Your task to perform on an android device: toggle notification dots Image 0: 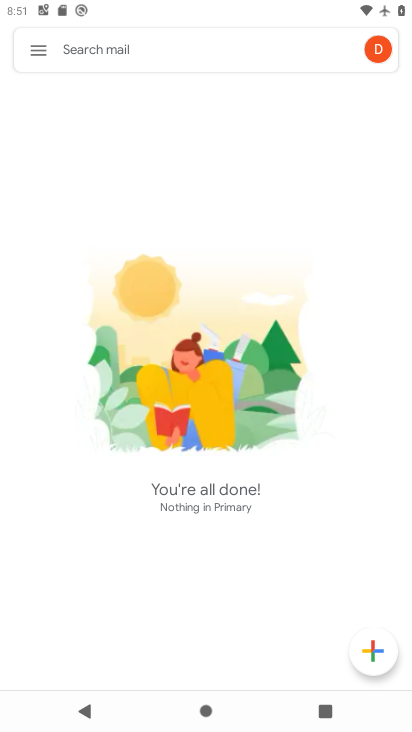
Step 0: press home button
Your task to perform on an android device: toggle notification dots Image 1: 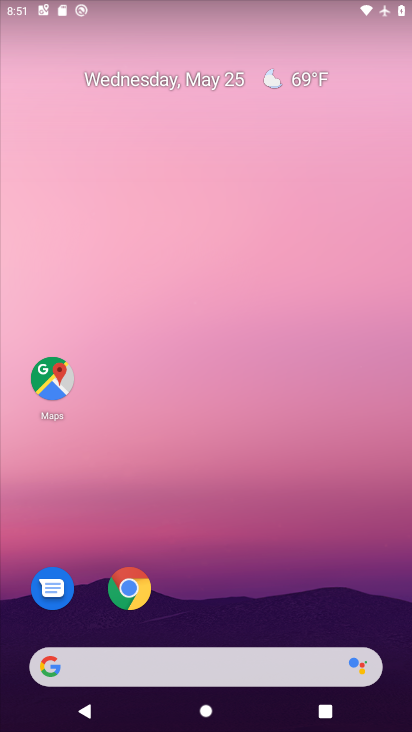
Step 1: drag from (380, 590) to (400, 244)
Your task to perform on an android device: toggle notification dots Image 2: 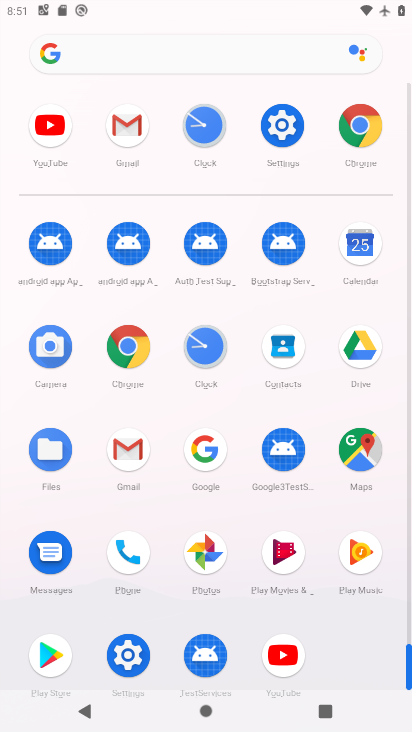
Step 2: click (295, 129)
Your task to perform on an android device: toggle notification dots Image 3: 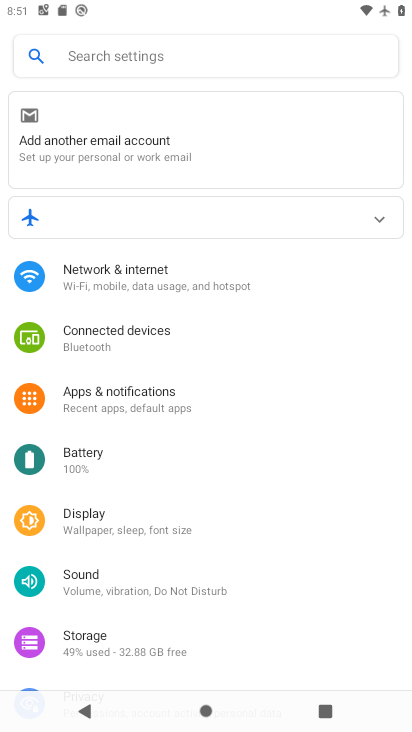
Step 3: drag from (313, 494) to (309, 350)
Your task to perform on an android device: toggle notification dots Image 4: 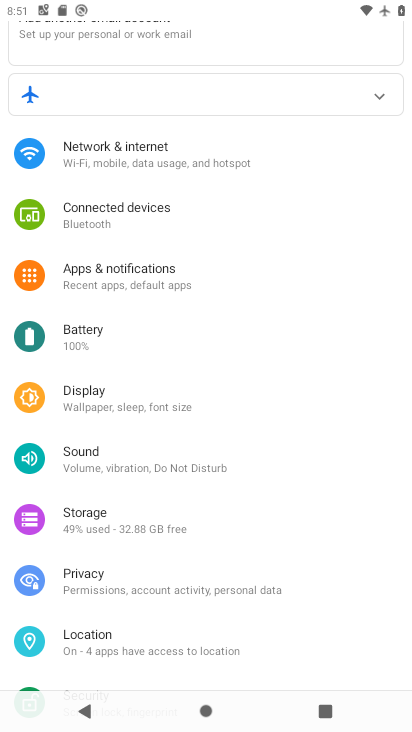
Step 4: drag from (348, 509) to (358, 386)
Your task to perform on an android device: toggle notification dots Image 5: 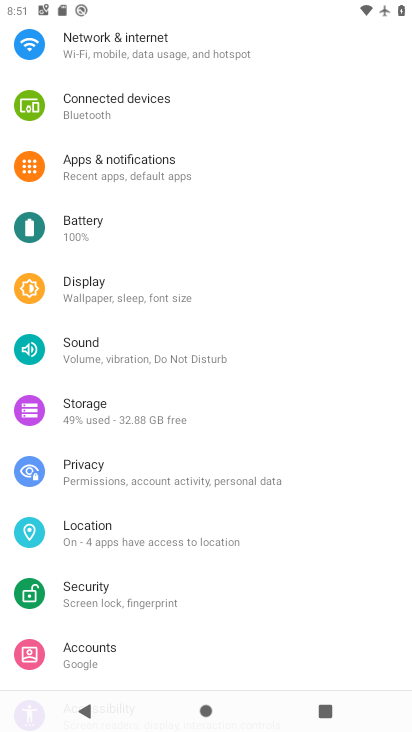
Step 5: drag from (372, 521) to (365, 424)
Your task to perform on an android device: toggle notification dots Image 6: 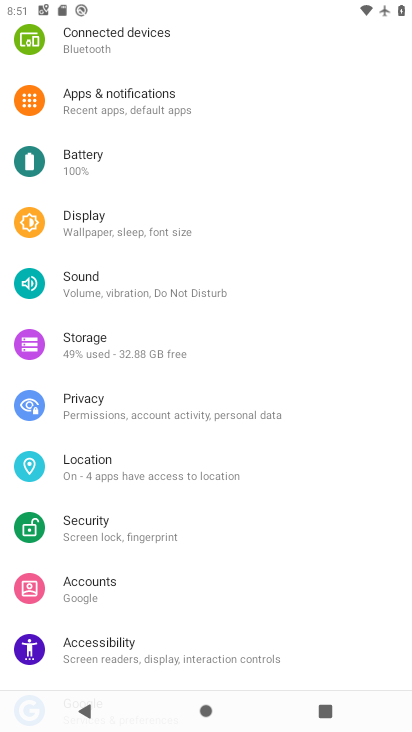
Step 6: drag from (341, 561) to (349, 472)
Your task to perform on an android device: toggle notification dots Image 7: 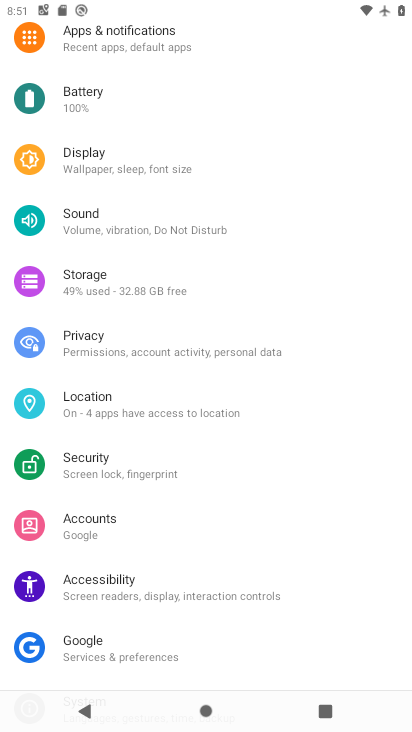
Step 7: drag from (364, 211) to (348, 325)
Your task to perform on an android device: toggle notification dots Image 8: 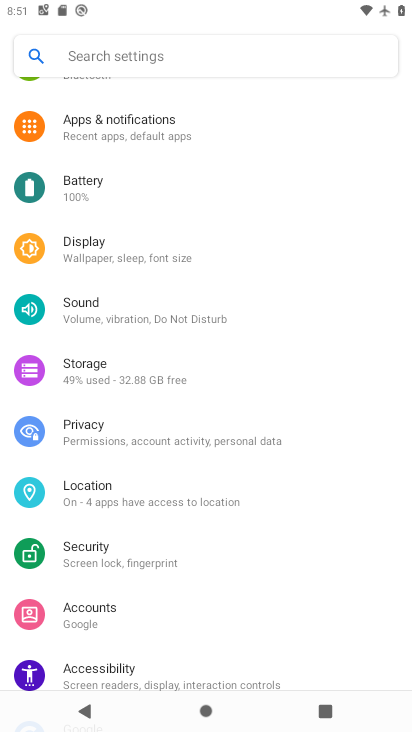
Step 8: drag from (348, 212) to (348, 306)
Your task to perform on an android device: toggle notification dots Image 9: 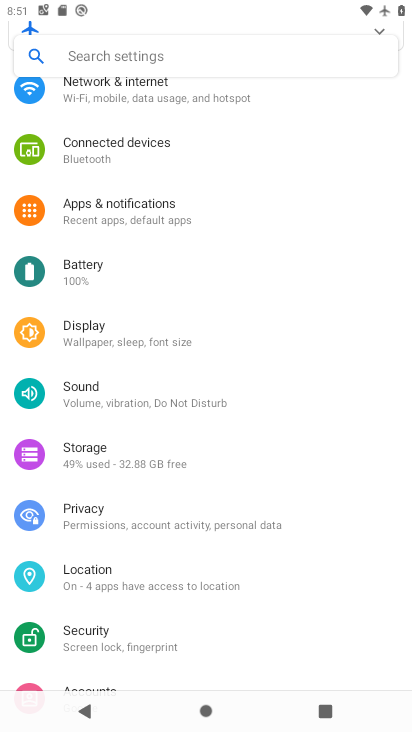
Step 9: drag from (357, 246) to (351, 339)
Your task to perform on an android device: toggle notification dots Image 10: 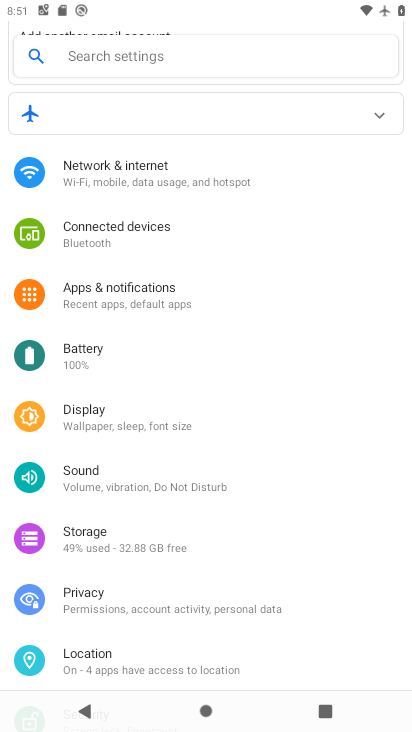
Step 10: drag from (341, 187) to (328, 317)
Your task to perform on an android device: toggle notification dots Image 11: 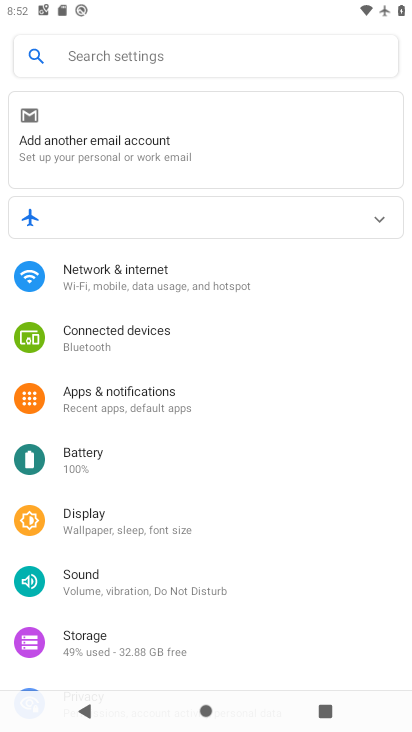
Step 11: drag from (308, 192) to (301, 264)
Your task to perform on an android device: toggle notification dots Image 12: 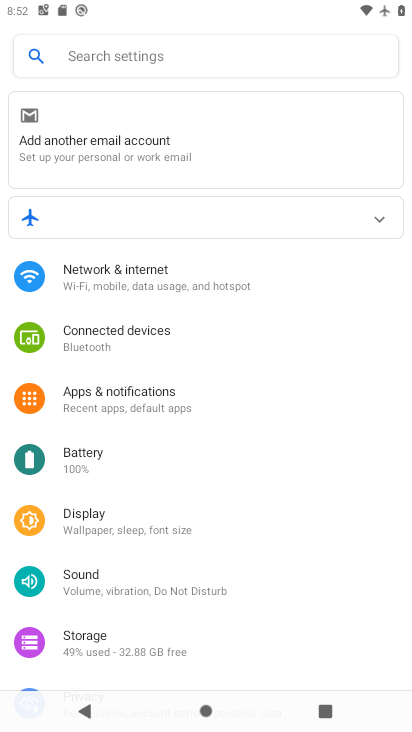
Step 12: click (196, 397)
Your task to perform on an android device: toggle notification dots Image 13: 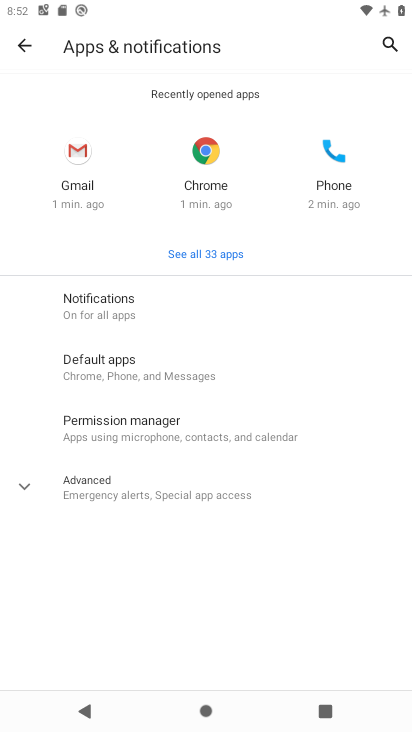
Step 13: click (153, 325)
Your task to perform on an android device: toggle notification dots Image 14: 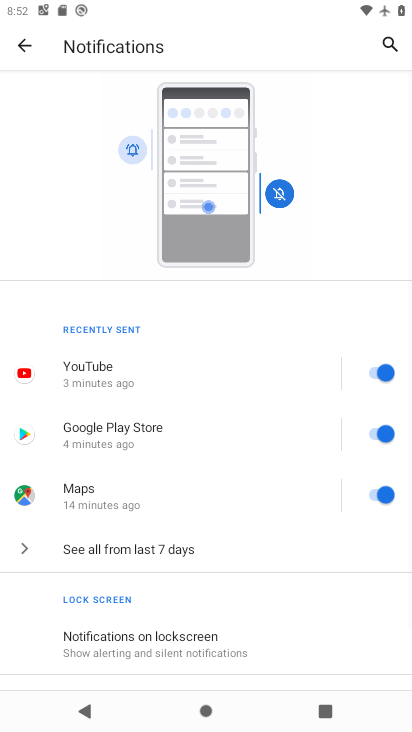
Step 14: drag from (234, 497) to (244, 402)
Your task to perform on an android device: toggle notification dots Image 15: 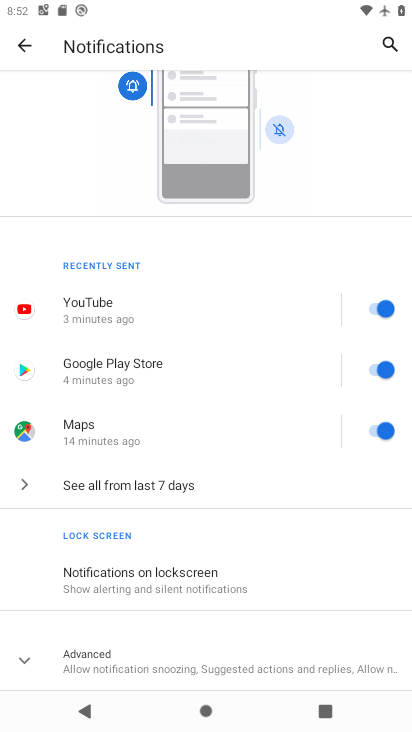
Step 15: drag from (286, 487) to (286, 439)
Your task to perform on an android device: toggle notification dots Image 16: 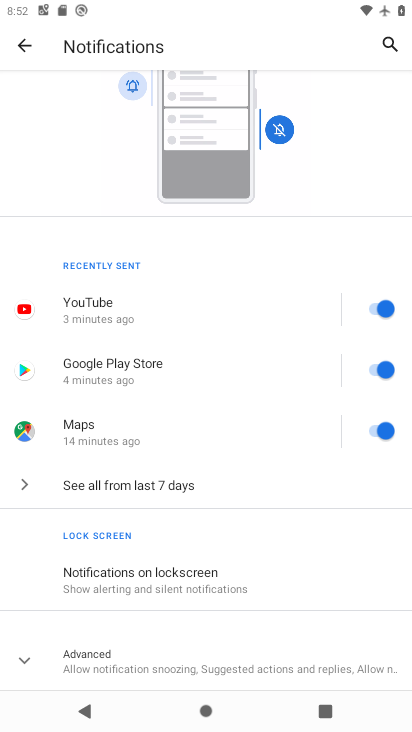
Step 16: drag from (278, 550) to (284, 448)
Your task to perform on an android device: toggle notification dots Image 17: 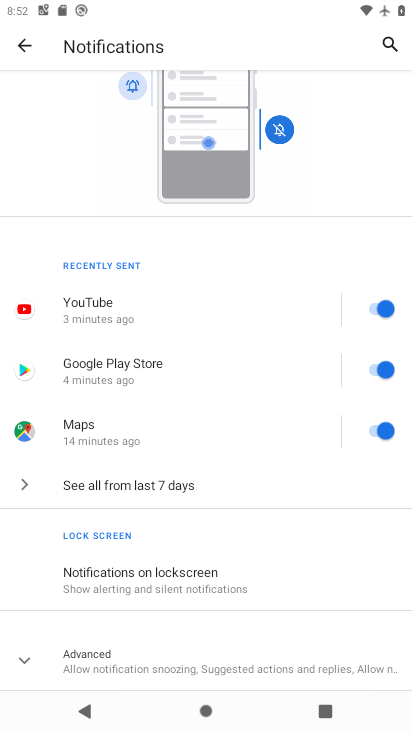
Step 17: click (208, 657)
Your task to perform on an android device: toggle notification dots Image 18: 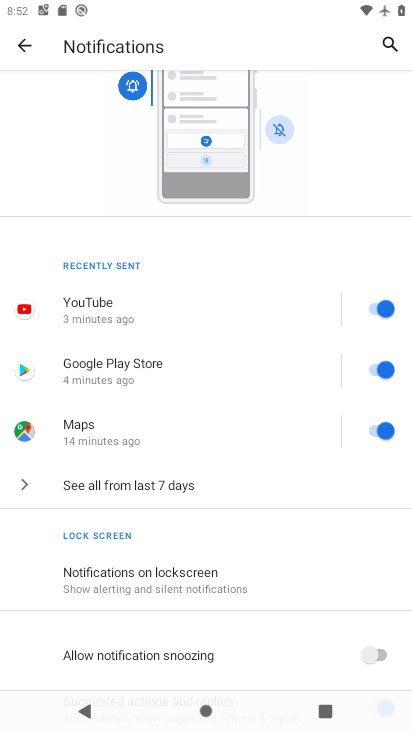
Step 18: drag from (279, 604) to (292, 481)
Your task to perform on an android device: toggle notification dots Image 19: 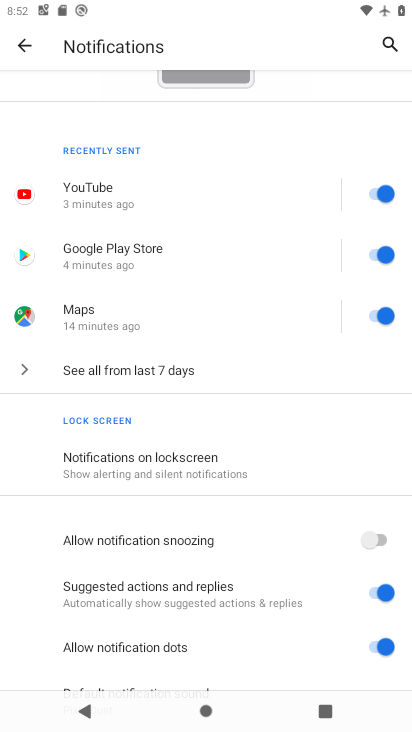
Step 19: drag from (277, 623) to (297, 536)
Your task to perform on an android device: toggle notification dots Image 20: 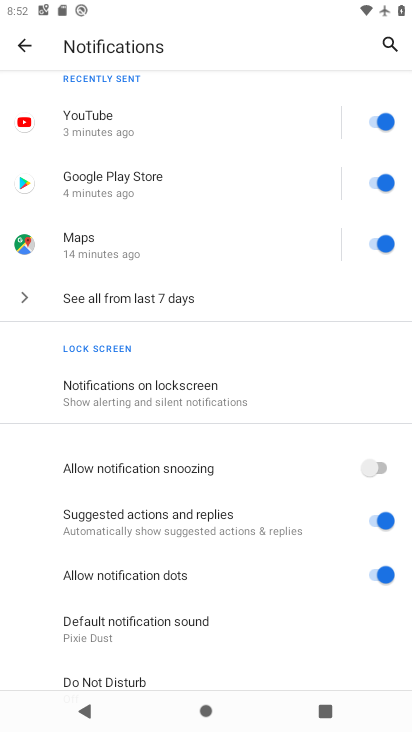
Step 20: drag from (302, 618) to (328, 488)
Your task to perform on an android device: toggle notification dots Image 21: 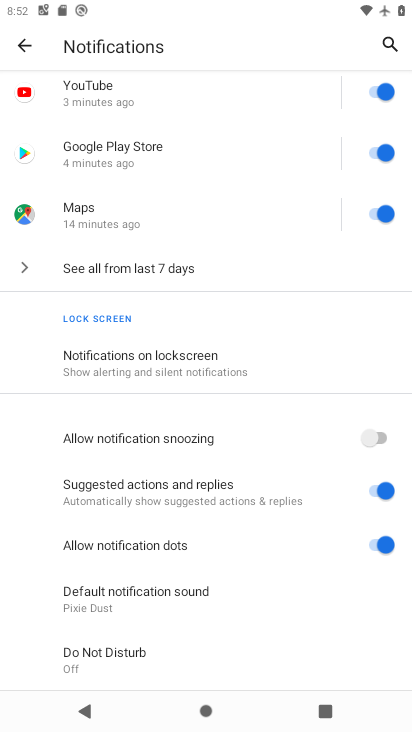
Step 21: drag from (299, 595) to (300, 474)
Your task to perform on an android device: toggle notification dots Image 22: 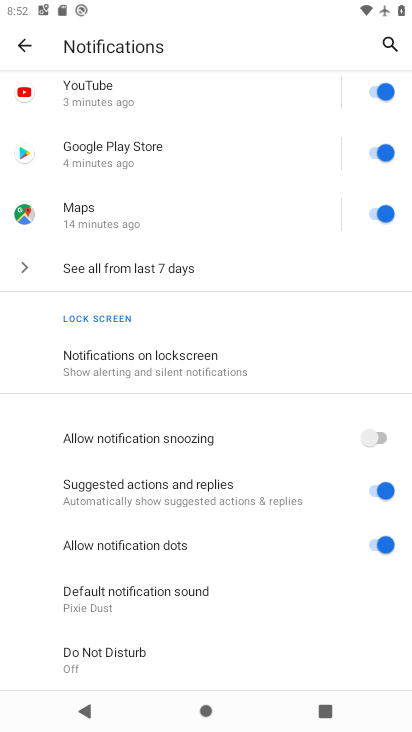
Step 22: click (397, 539)
Your task to perform on an android device: toggle notification dots Image 23: 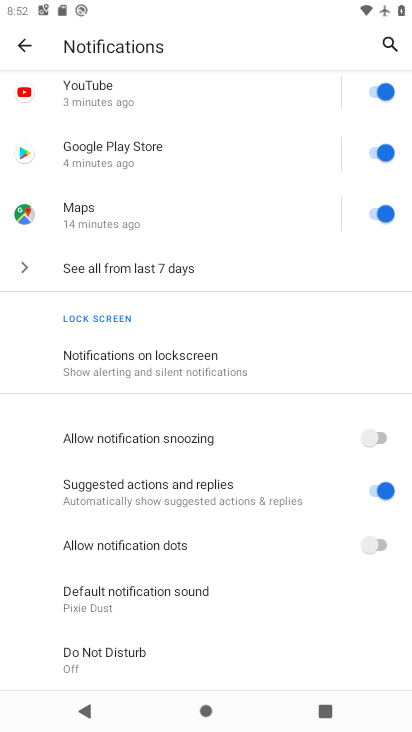
Step 23: task complete